Your task to perform on an android device: change text size in settings app Image 0: 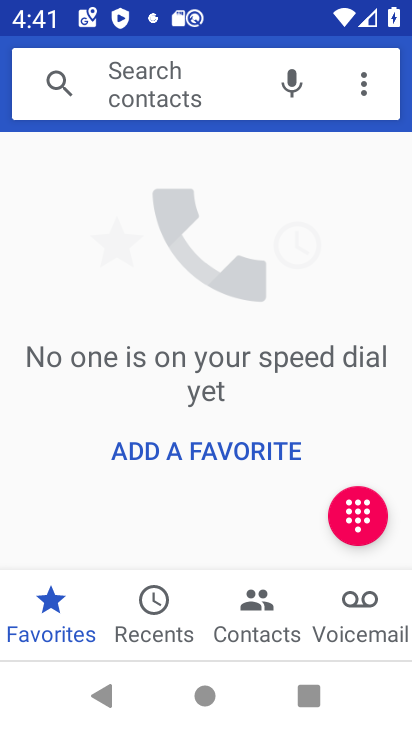
Step 0: press home button
Your task to perform on an android device: change text size in settings app Image 1: 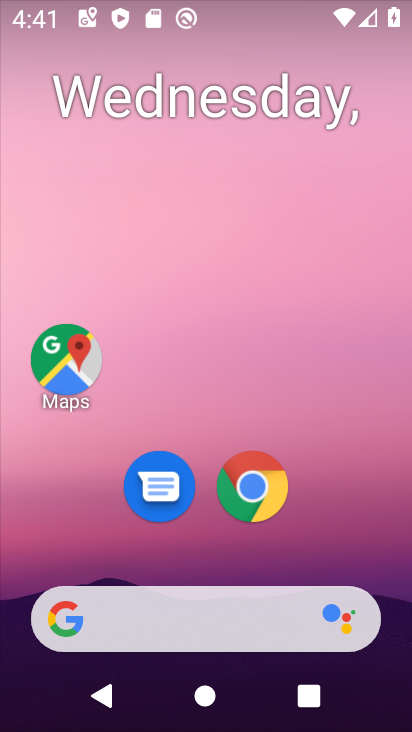
Step 1: drag from (158, 501) to (232, 106)
Your task to perform on an android device: change text size in settings app Image 2: 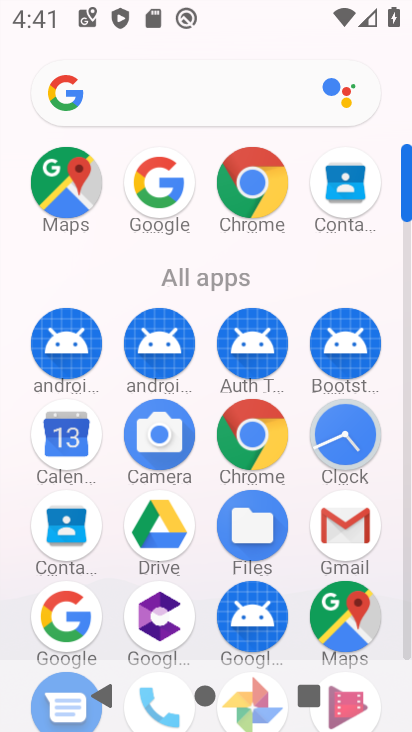
Step 2: drag from (160, 463) to (175, 152)
Your task to perform on an android device: change text size in settings app Image 3: 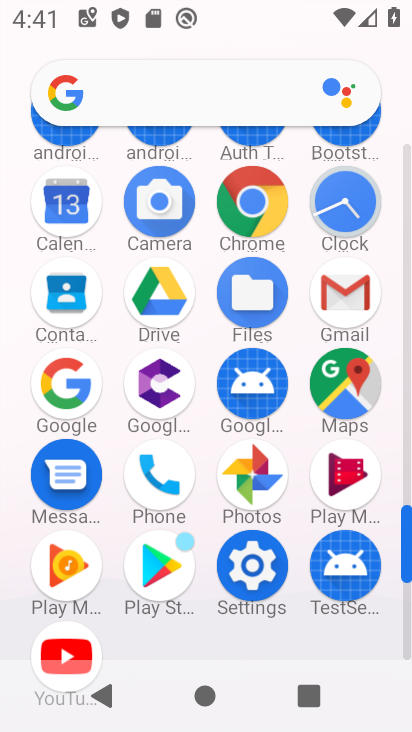
Step 3: click (255, 580)
Your task to perform on an android device: change text size in settings app Image 4: 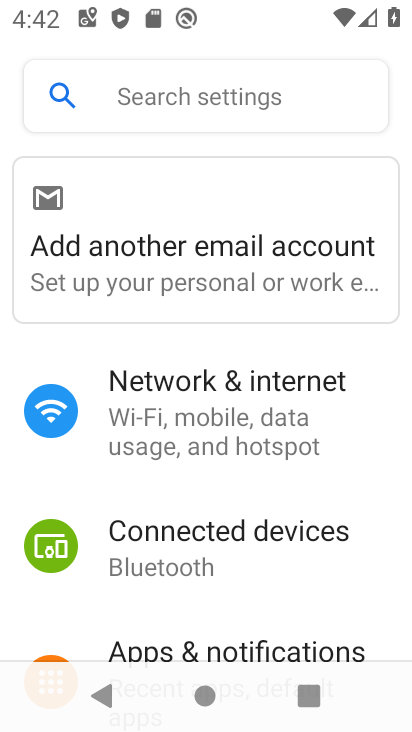
Step 4: drag from (213, 563) to (372, 50)
Your task to perform on an android device: change text size in settings app Image 5: 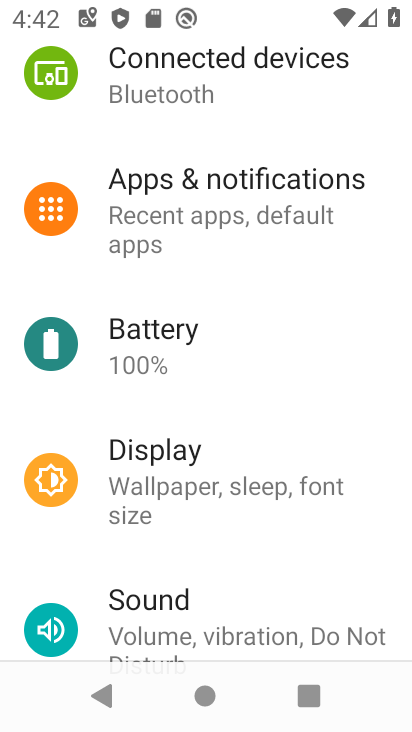
Step 5: click (190, 501)
Your task to perform on an android device: change text size in settings app Image 6: 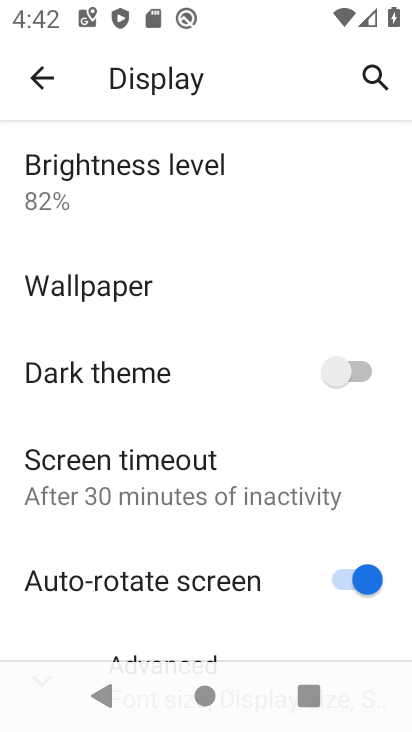
Step 6: drag from (147, 517) to (272, 68)
Your task to perform on an android device: change text size in settings app Image 7: 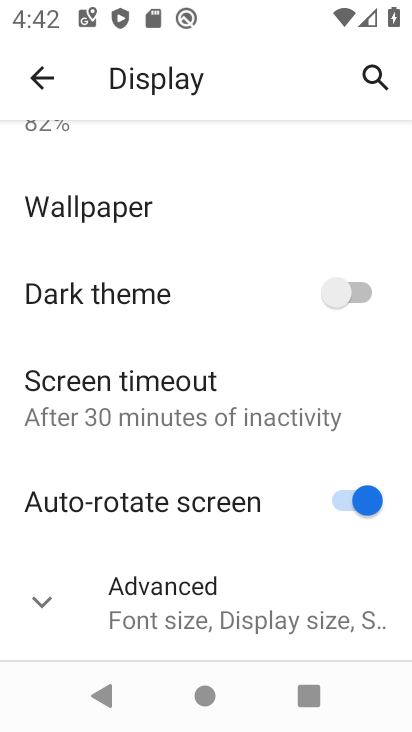
Step 7: click (218, 610)
Your task to perform on an android device: change text size in settings app Image 8: 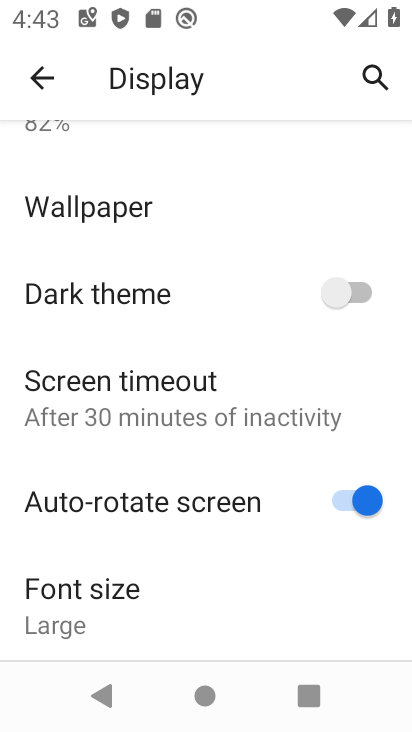
Step 8: click (129, 609)
Your task to perform on an android device: change text size in settings app Image 9: 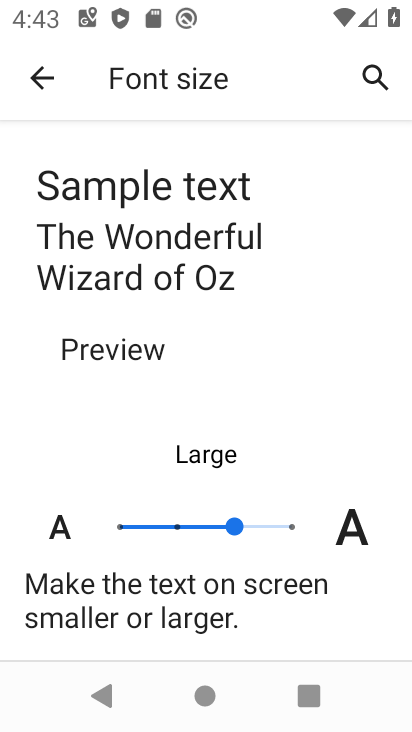
Step 9: click (181, 524)
Your task to perform on an android device: change text size in settings app Image 10: 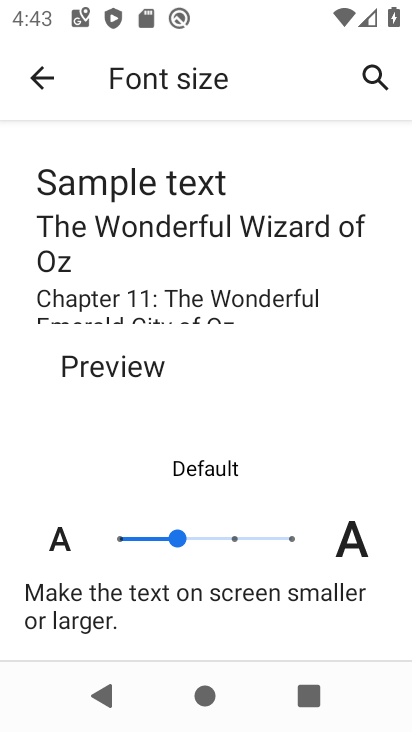
Step 10: task complete